Your task to perform on an android device: turn on location history Image 0: 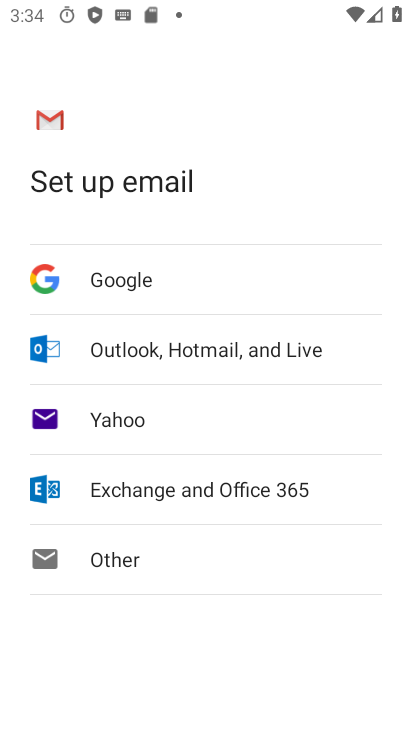
Step 0: press home button
Your task to perform on an android device: turn on location history Image 1: 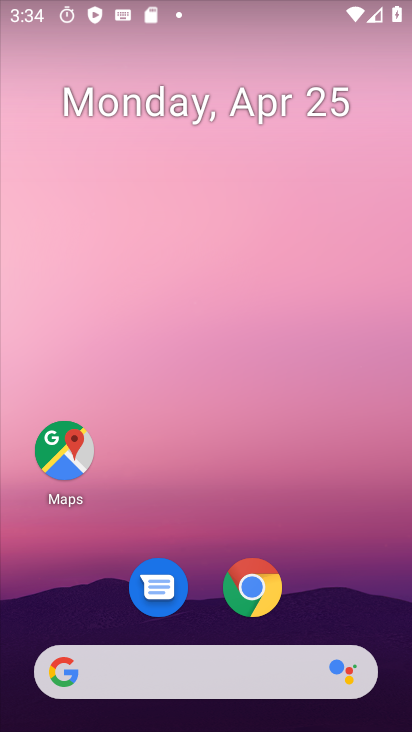
Step 1: drag from (327, 551) to (157, 2)
Your task to perform on an android device: turn on location history Image 2: 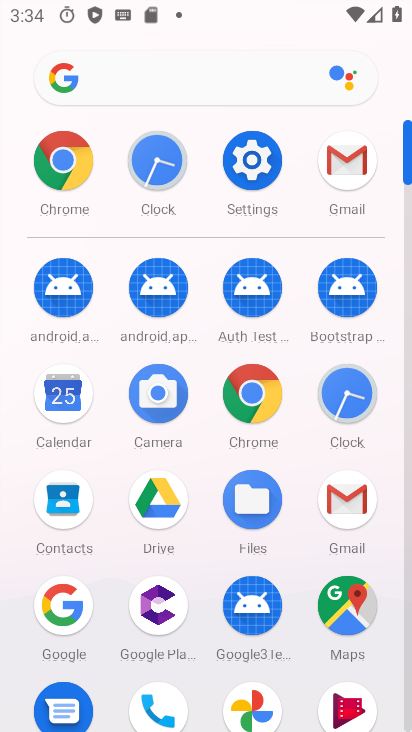
Step 2: drag from (298, 583) to (323, 300)
Your task to perform on an android device: turn on location history Image 3: 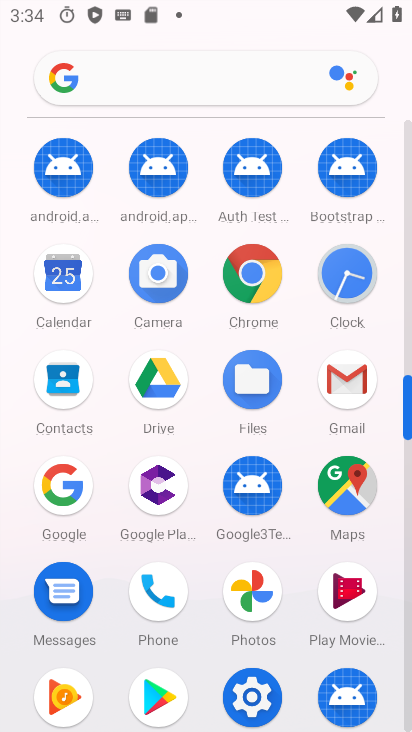
Step 3: drag from (284, 279) to (288, 108)
Your task to perform on an android device: turn on location history Image 4: 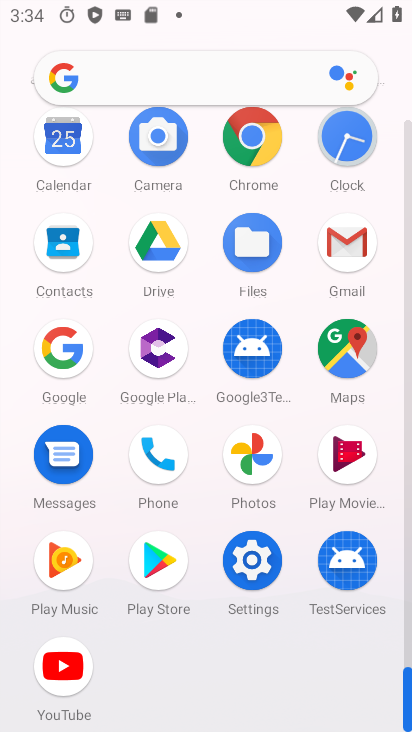
Step 4: click (242, 538)
Your task to perform on an android device: turn on location history Image 5: 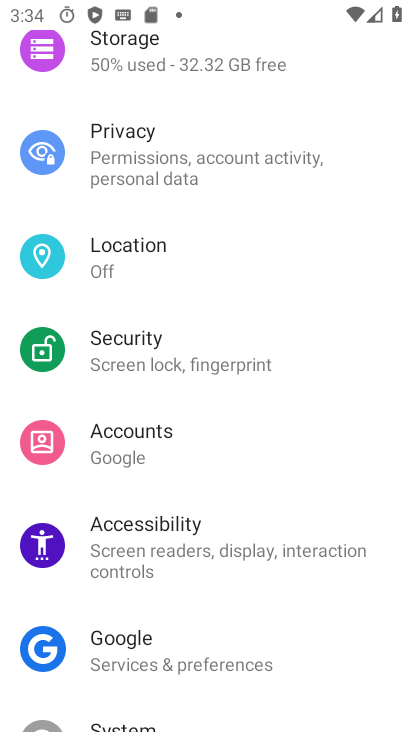
Step 5: click (176, 272)
Your task to perform on an android device: turn on location history Image 6: 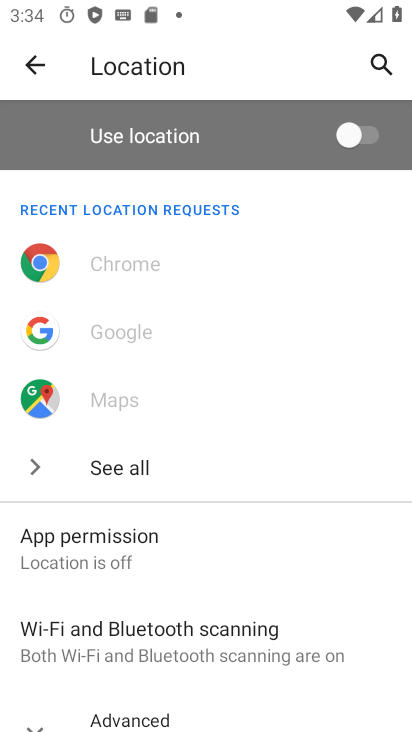
Step 6: drag from (237, 613) to (217, 64)
Your task to perform on an android device: turn on location history Image 7: 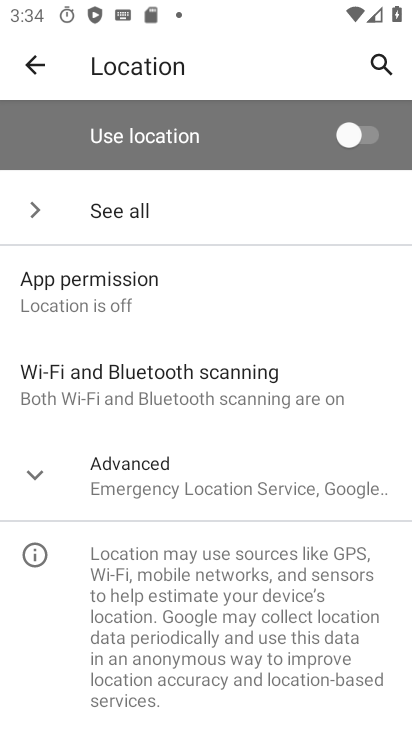
Step 7: click (183, 505)
Your task to perform on an android device: turn on location history Image 8: 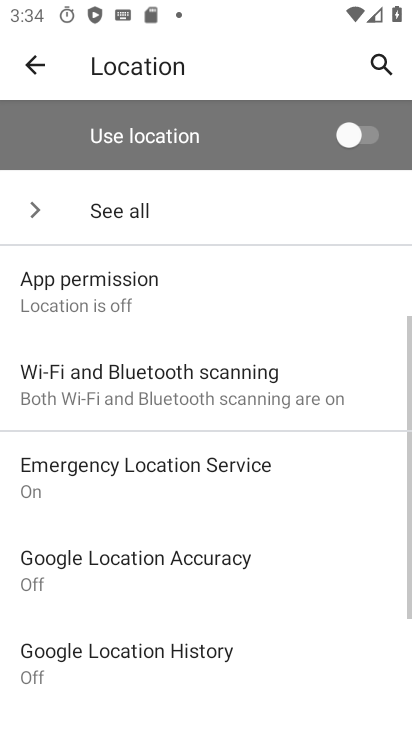
Step 8: drag from (305, 600) to (361, 323)
Your task to perform on an android device: turn on location history Image 9: 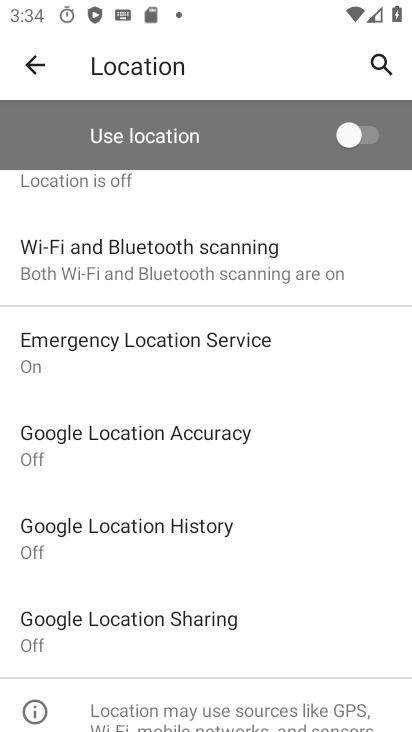
Step 9: click (137, 539)
Your task to perform on an android device: turn on location history Image 10: 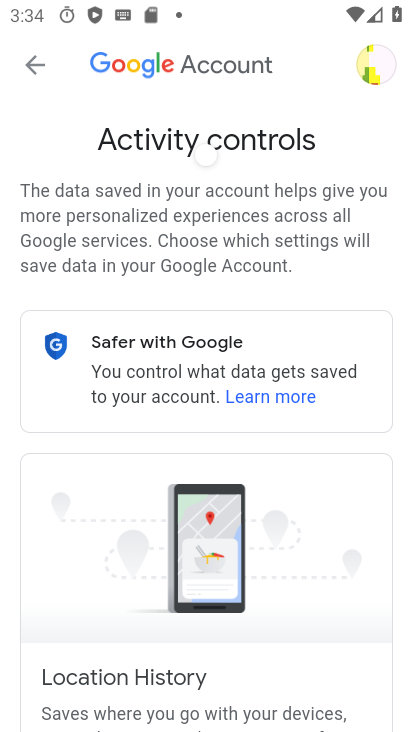
Step 10: task complete